Your task to perform on an android device: Open accessibility settings Image 0: 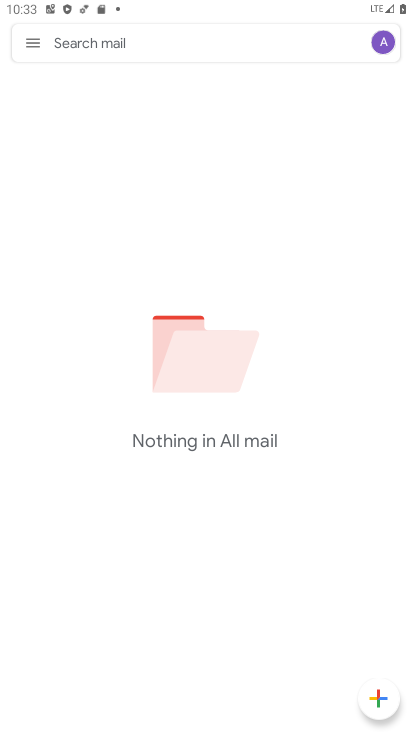
Step 0: press home button
Your task to perform on an android device: Open accessibility settings Image 1: 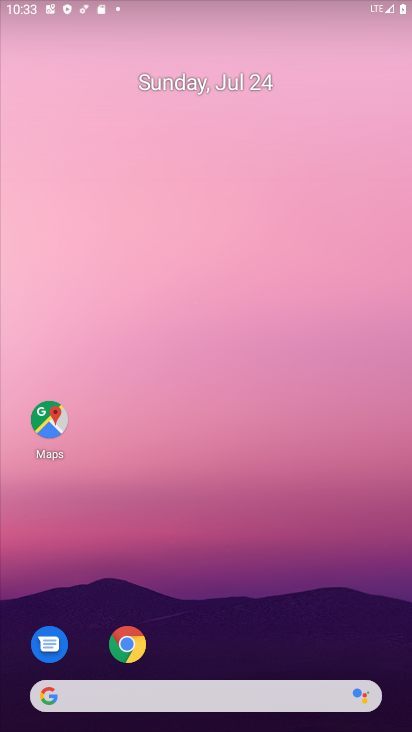
Step 1: drag from (46, 611) to (267, 81)
Your task to perform on an android device: Open accessibility settings Image 2: 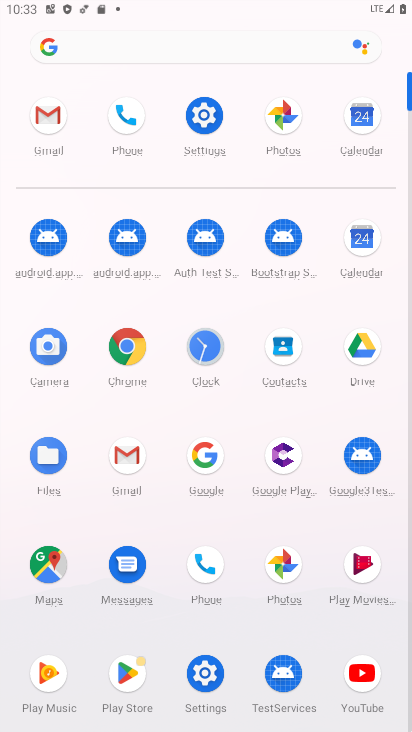
Step 2: click (185, 115)
Your task to perform on an android device: Open accessibility settings Image 3: 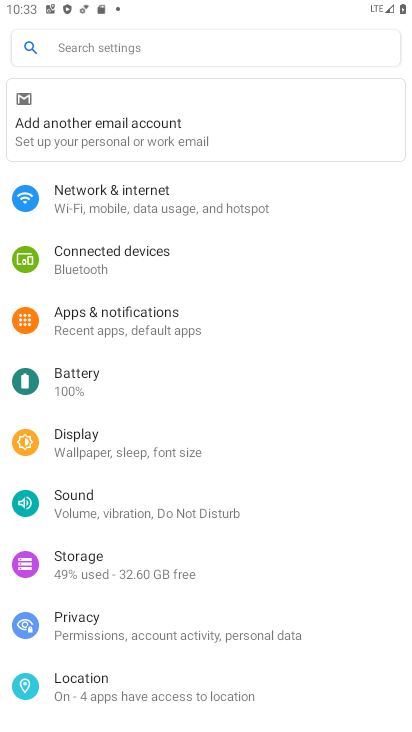
Step 3: drag from (136, 647) to (319, 156)
Your task to perform on an android device: Open accessibility settings Image 4: 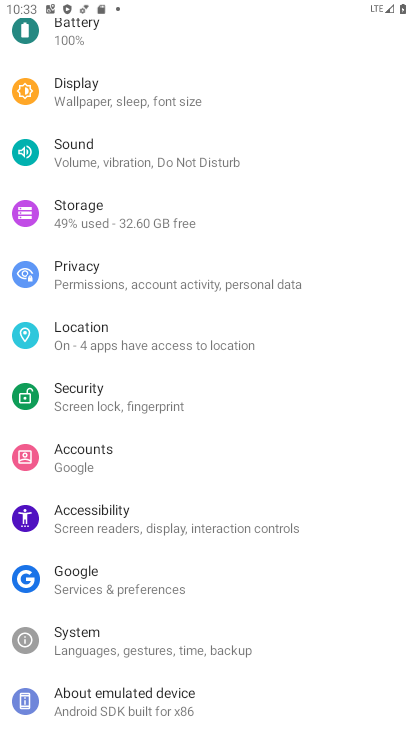
Step 4: drag from (114, 564) to (344, 62)
Your task to perform on an android device: Open accessibility settings Image 5: 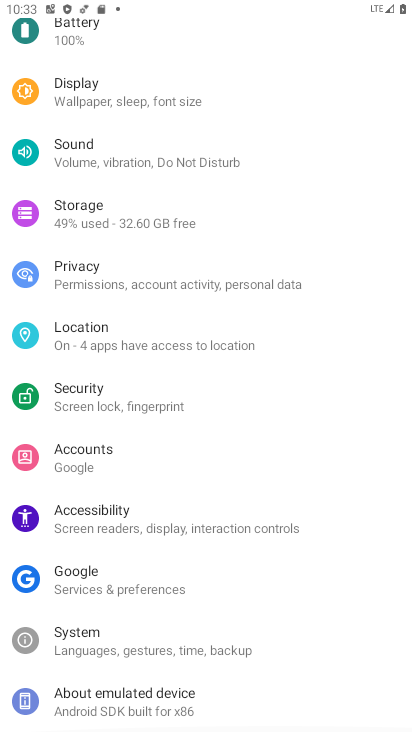
Step 5: drag from (287, 121) to (221, 585)
Your task to perform on an android device: Open accessibility settings Image 6: 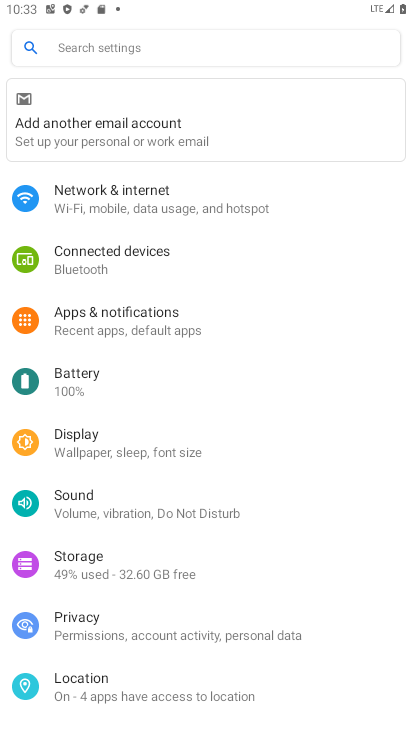
Step 6: drag from (115, 654) to (312, 214)
Your task to perform on an android device: Open accessibility settings Image 7: 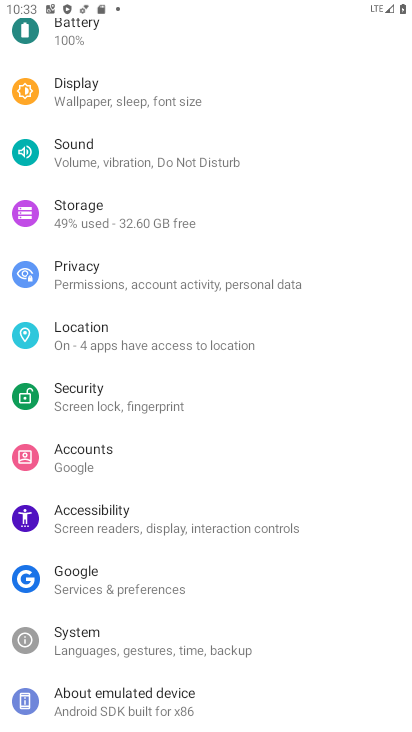
Step 7: click (115, 521)
Your task to perform on an android device: Open accessibility settings Image 8: 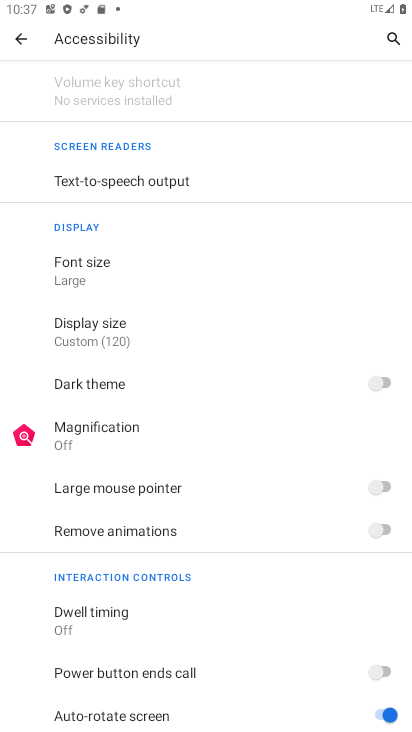
Step 8: task complete